Your task to perform on an android device: Go to sound settings Image 0: 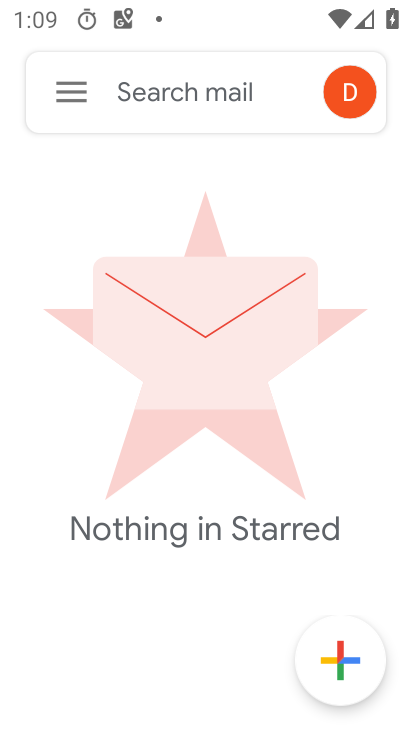
Step 0: press home button
Your task to perform on an android device: Go to sound settings Image 1: 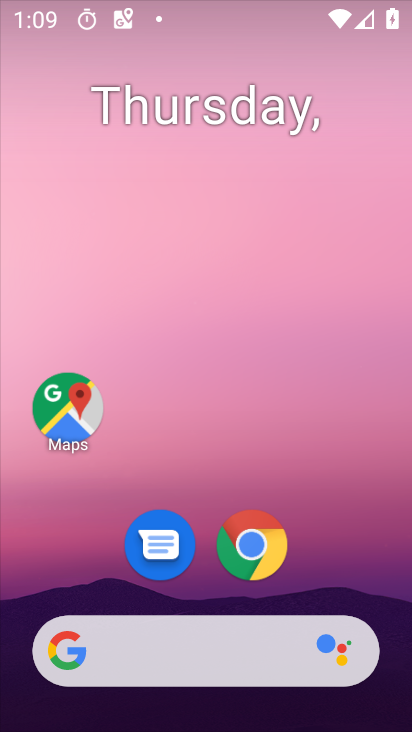
Step 1: drag from (303, 660) to (366, 0)
Your task to perform on an android device: Go to sound settings Image 2: 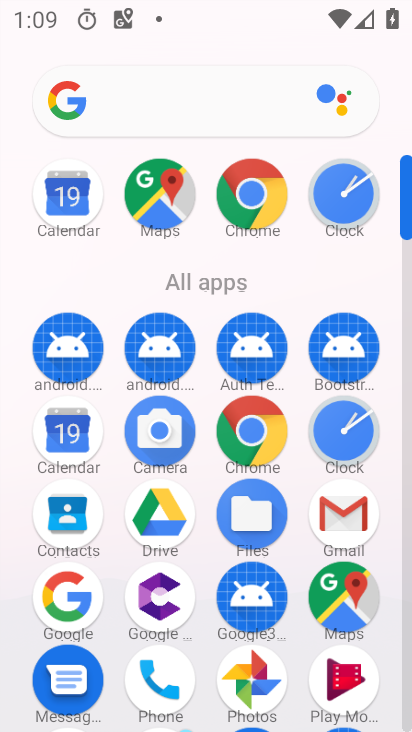
Step 2: drag from (214, 623) to (205, 175)
Your task to perform on an android device: Go to sound settings Image 3: 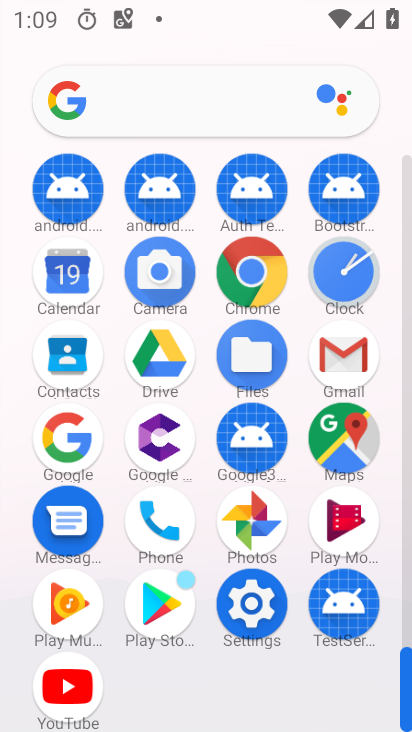
Step 3: click (248, 597)
Your task to perform on an android device: Go to sound settings Image 4: 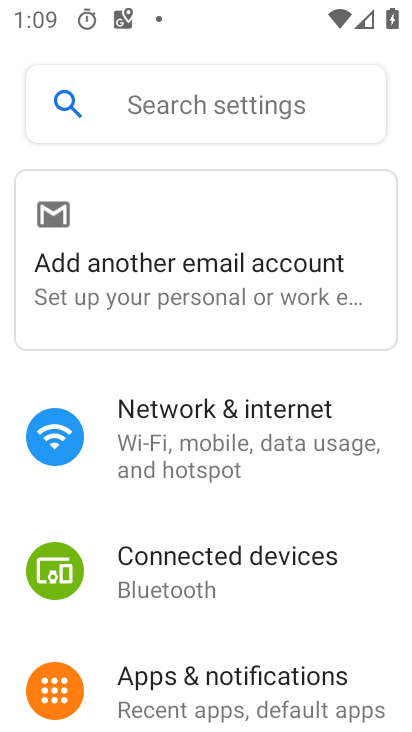
Step 4: drag from (228, 666) to (226, 219)
Your task to perform on an android device: Go to sound settings Image 5: 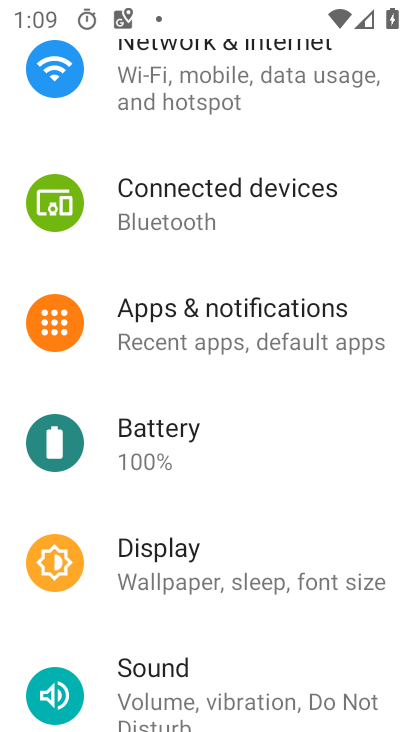
Step 5: drag from (204, 653) to (211, 385)
Your task to perform on an android device: Go to sound settings Image 6: 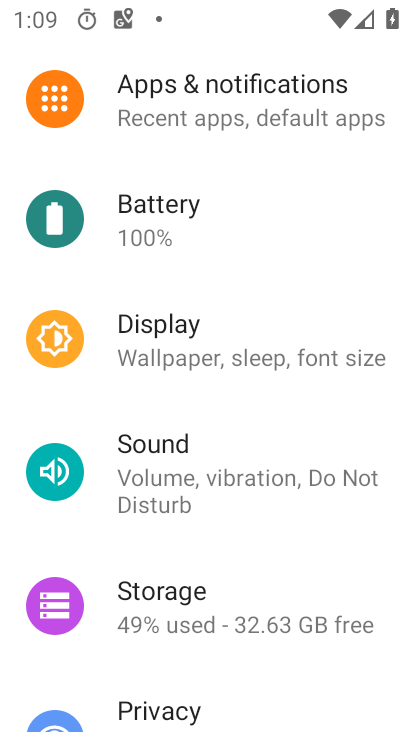
Step 6: click (193, 477)
Your task to perform on an android device: Go to sound settings Image 7: 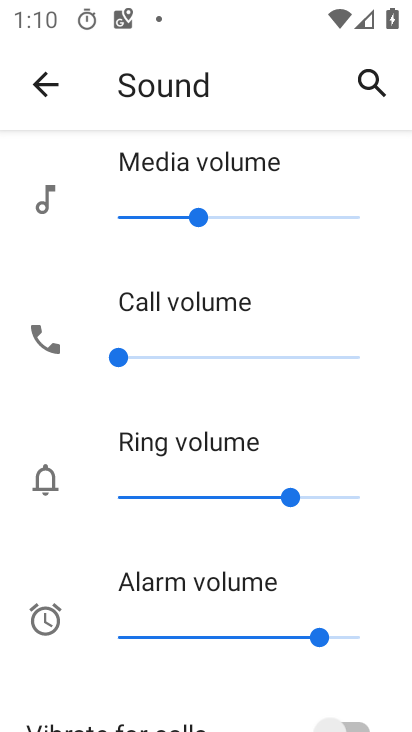
Step 7: task complete